Your task to perform on an android device: Go to CNN.com Image 0: 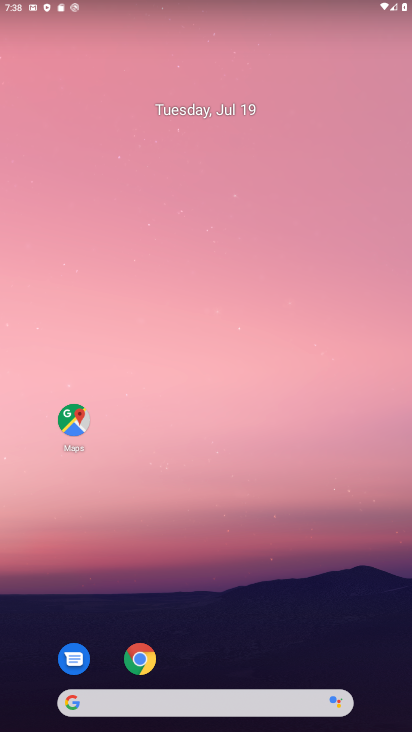
Step 0: drag from (265, 644) to (276, 306)
Your task to perform on an android device: Go to CNN.com Image 1: 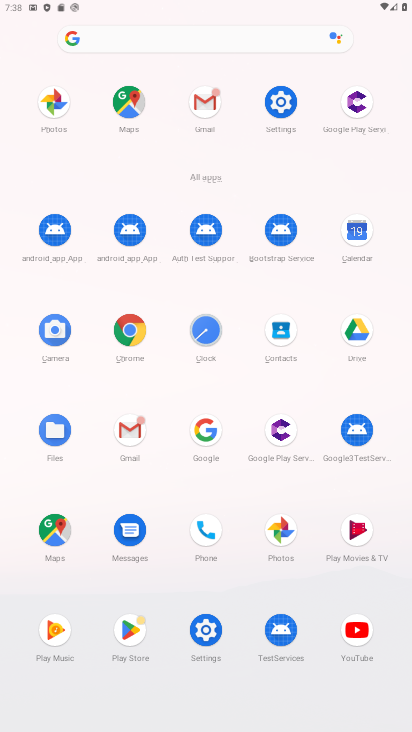
Step 1: click (139, 333)
Your task to perform on an android device: Go to CNN.com Image 2: 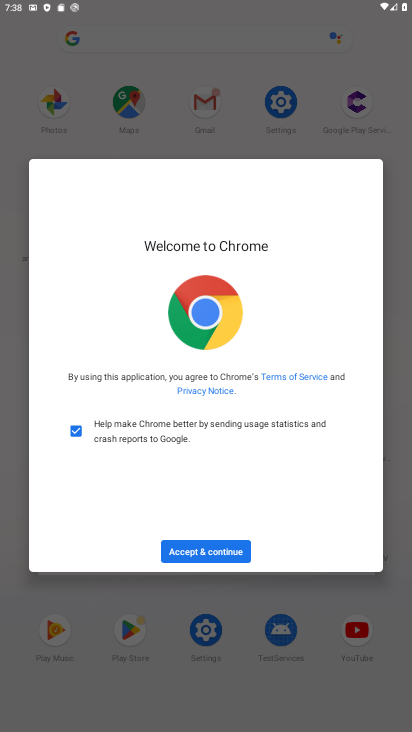
Step 2: click (221, 553)
Your task to perform on an android device: Go to CNN.com Image 3: 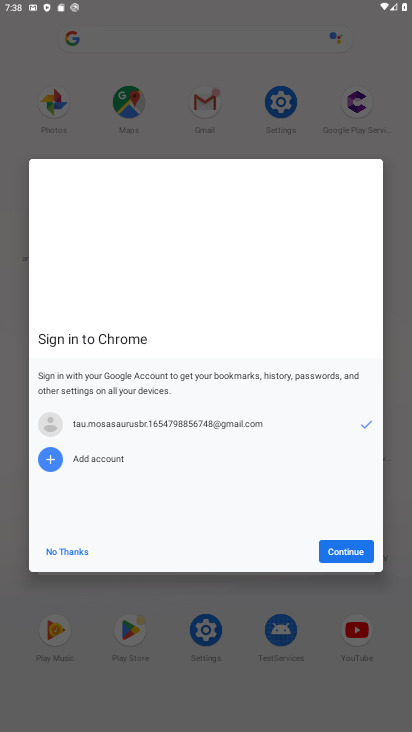
Step 3: click (347, 551)
Your task to perform on an android device: Go to CNN.com Image 4: 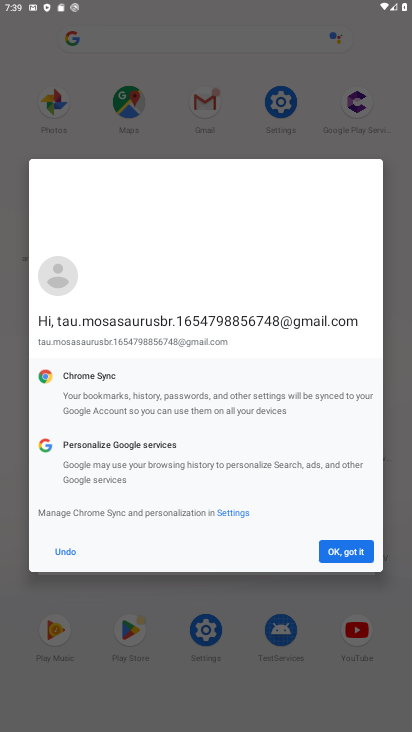
Step 4: click (355, 543)
Your task to perform on an android device: Go to CNN.com Image 5: 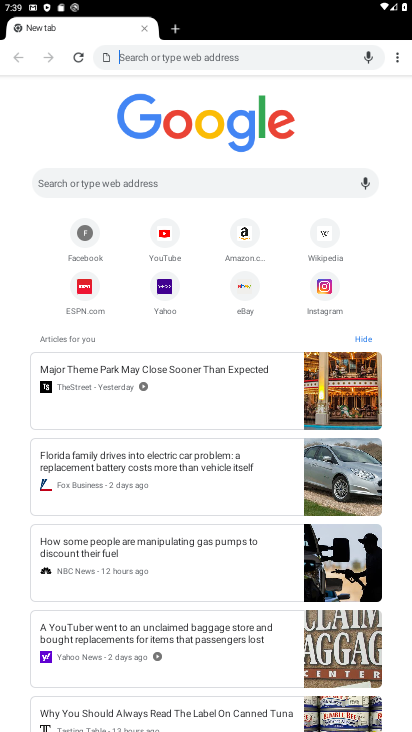
Step 5: click (182, 176)
Your task to perform on an android device: Go to CNN.com Image 6: 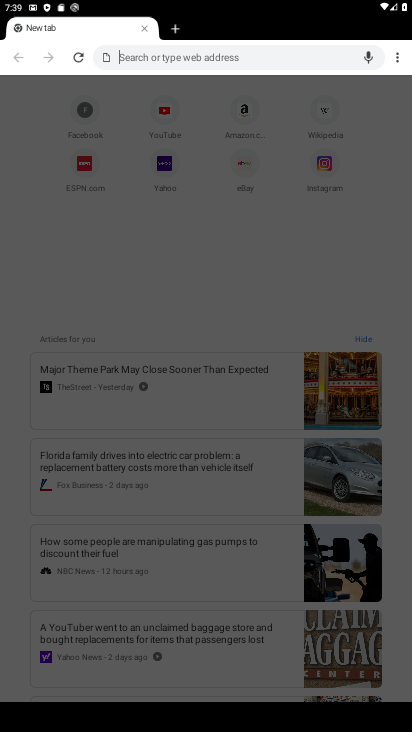
Step 6: type " CNN.com "
Your task to perform on an android device: Go to CNN.com Image 7: 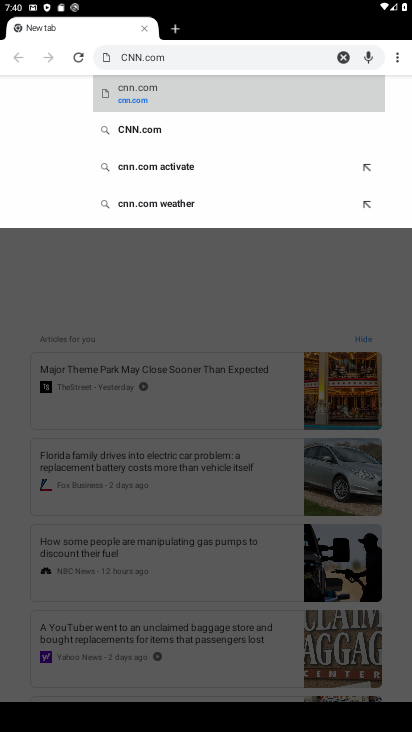
Step 7: click (199, 91)
Your task to perform on an android device: Go to CNN.com Image 8: 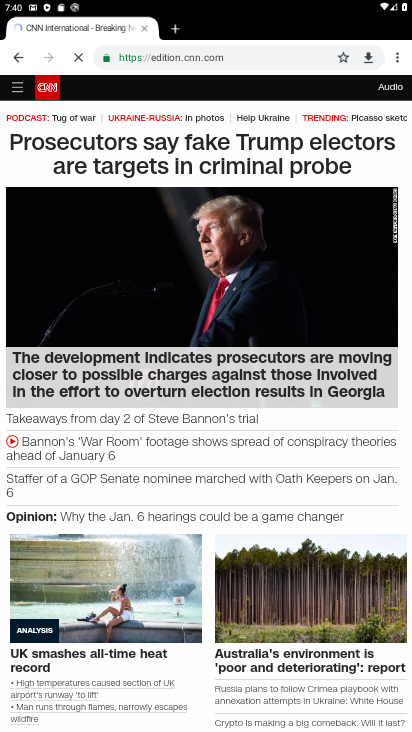
Step 8: task complete